Your task to perform on an android device: Open privacy settings Image 0: 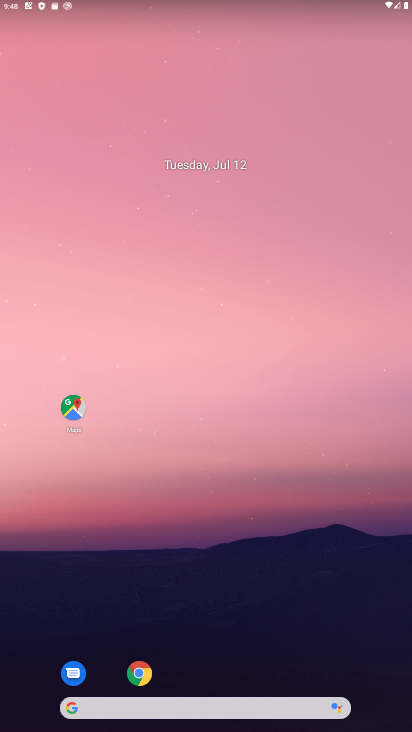
Step 0: press home button
Your task to perform on an android device: Open privacy settings Image 1: 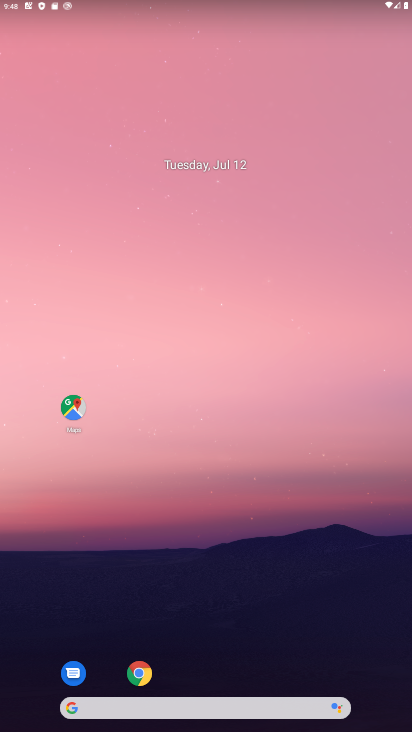
Step 1: click (138, 679)
Your task to perform on an android device: Open privacy settings Image 2: 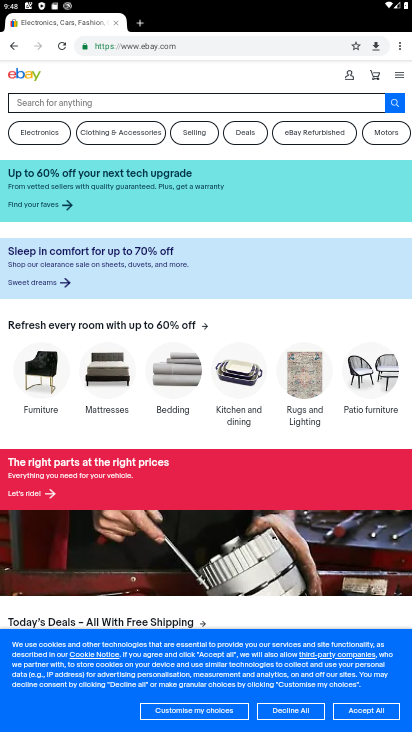
Step 2: press back button
Your task to perform on an android device: Open privacy settings Image 3: 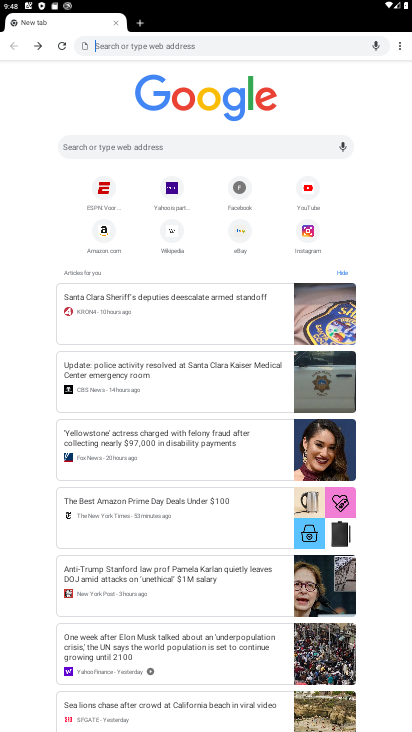
Step 3: press home button
Your task to perform on an android device: Open privacy settings Image 4: 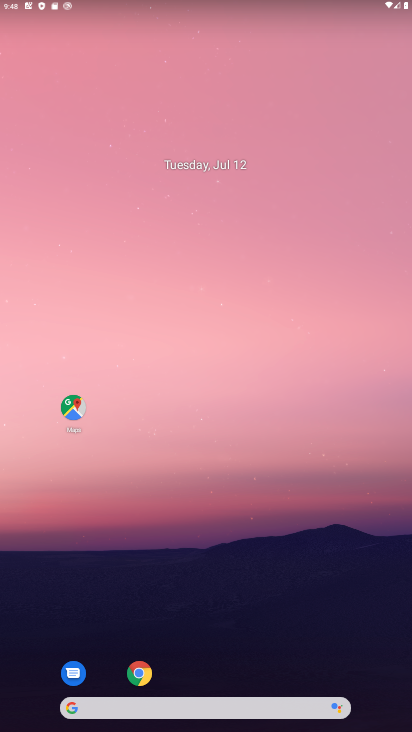
Step 4: drag from (189, 489) to (172, 27)
Your task to perform on an android device: Open privacy settings Image 5: 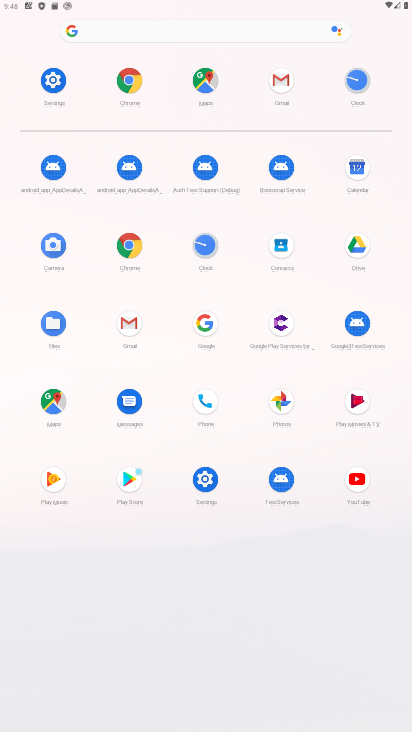
Step 5: click (59, 81)
Your task to perform on an android device: Open privacy settings Image 6: 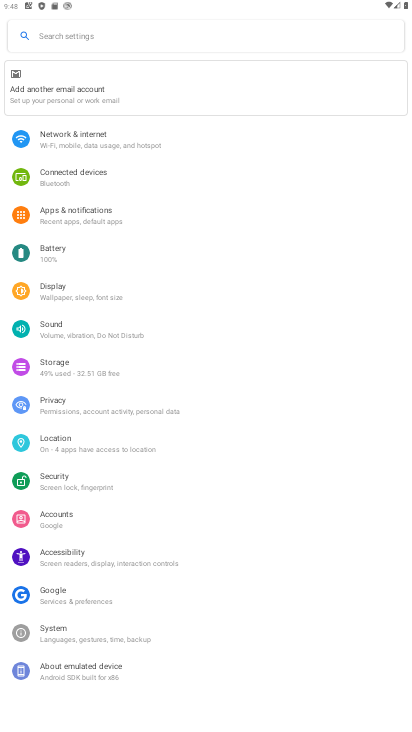
Step 6: click (53, 404)
Your task to perform on an android device: Open privacy settings Image 7: 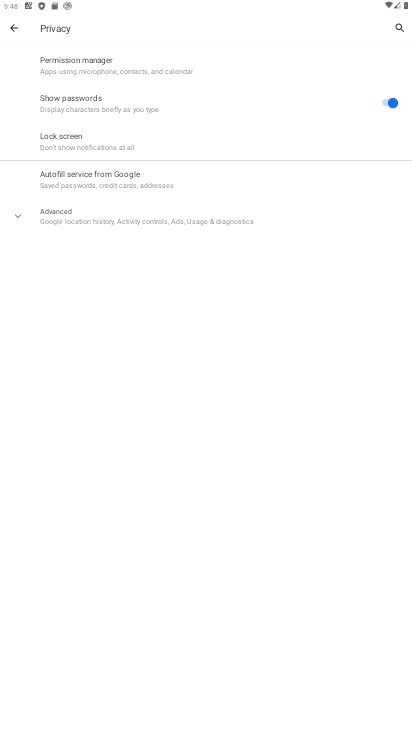
Step 7: task complete